Your task to perform on an android device: change text size in settings app Image 0: 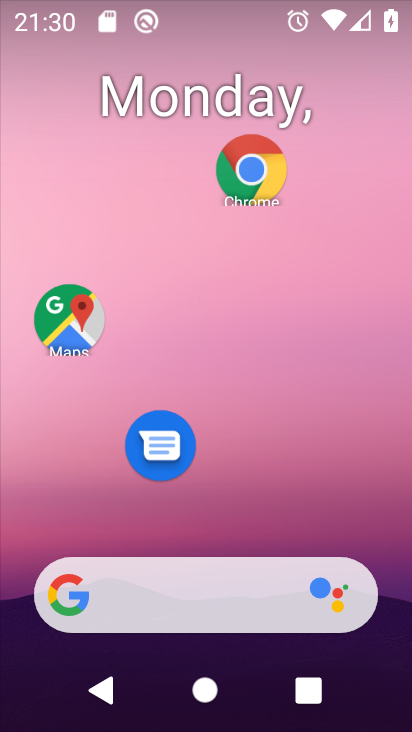
Step 0: press home button
Your task to perform on an android device: change text size in settings app Image 1: 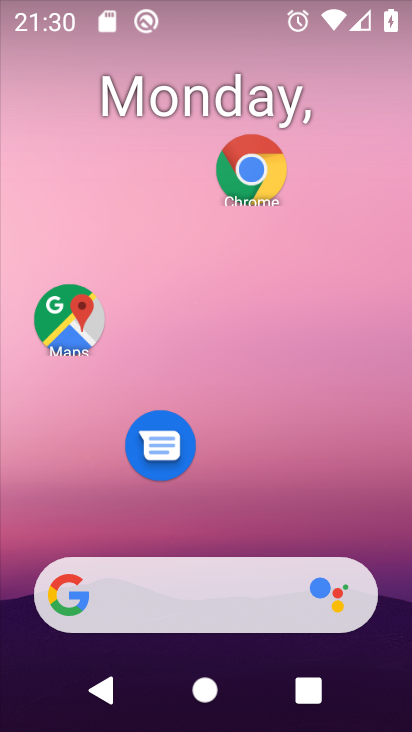
Step 1: drag from (213, 530) to (241, 6)
Your task to perform on an android device: change text size in settings app Image 2: 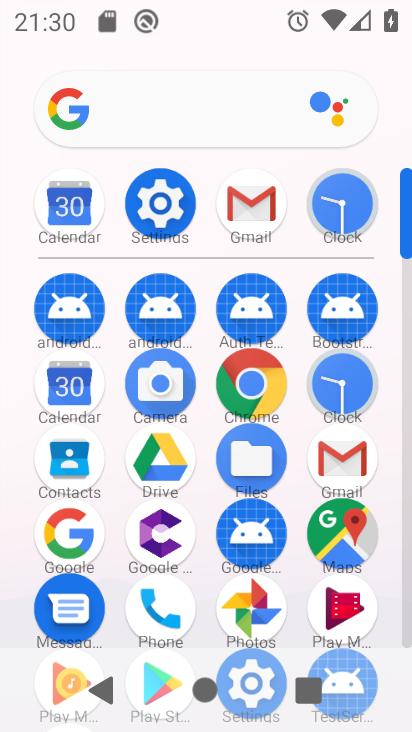
Step 2: click (156, 193)
Your task to perform on an android device: change text size in settings app Image 3: 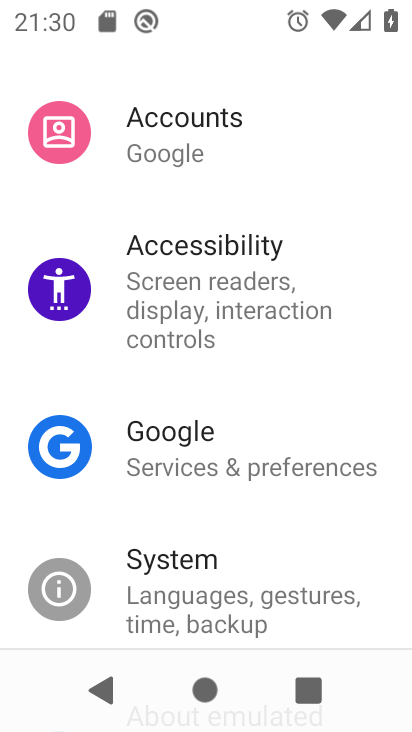
Step 3: drag from (152, 164) to (228, 659)
Your task to perform on an android device: change text size in settings app Image 4: 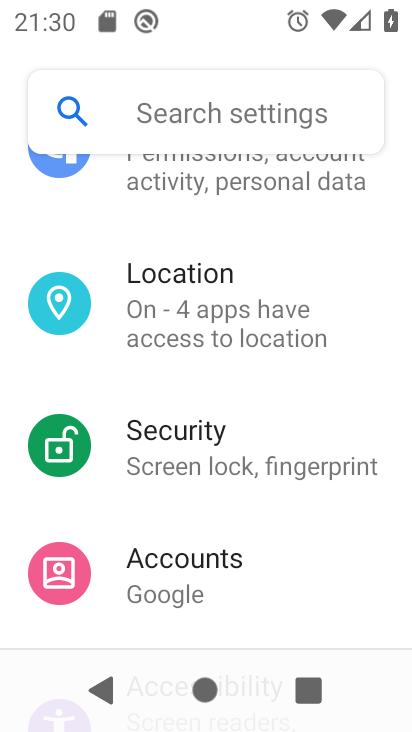
Step 4: drag from (116, 172) to (131, 687)
Your task to perform on an android device: change text size in settings app Image 5: 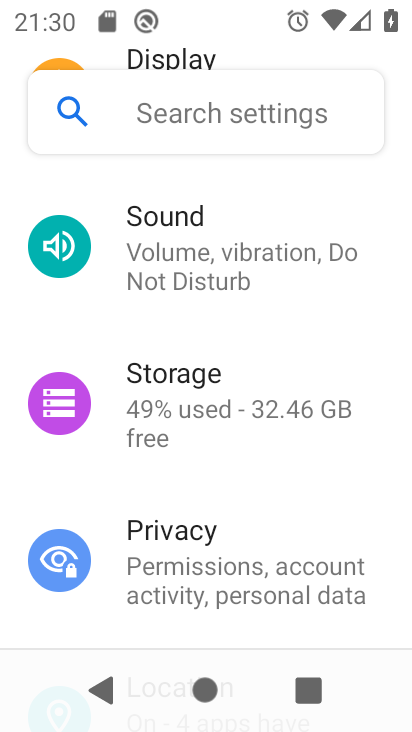
Step 5: drag from (116, 180) to (135, 725)
Your task to perform on an android device: change text size in settings app Image 6: 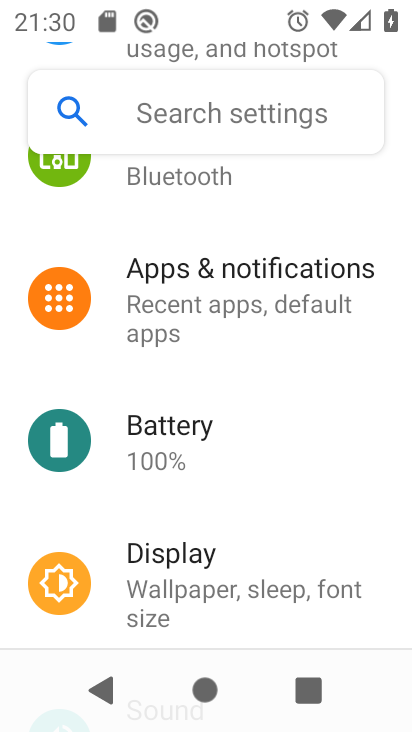
Step 6: click (109, 567)
Your task to perform on an android device: change text size in settings app Image 7: 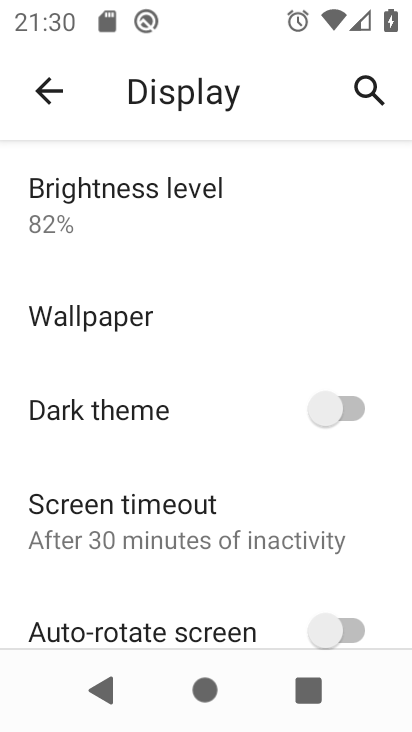
Step 7: drag from (215, 586) to (265, 223)
Your task to perform on an android device: change text size in settings app Image 8: 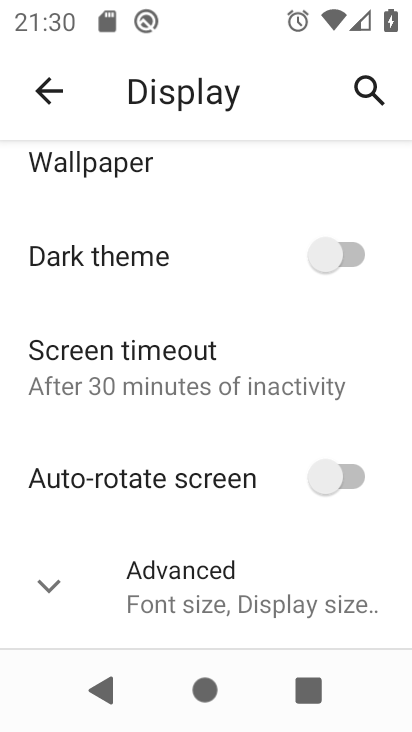
Step 8: click (46, 575)
Your task to perform on an android device: change text size in settings app Image 9: 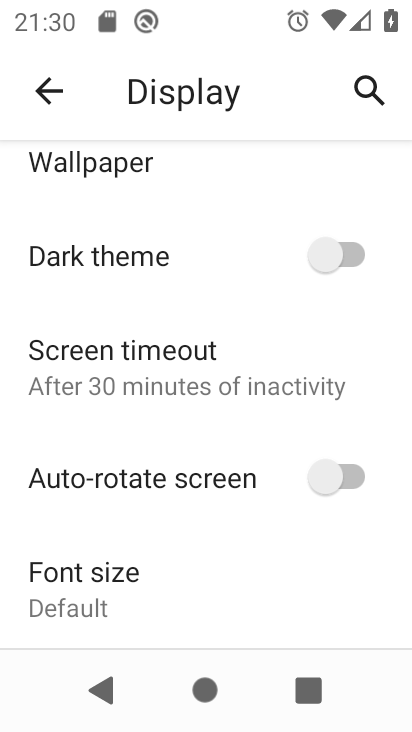
Step 9: click (137, 594)
Your task to perform on an android device: change text size in settings app Image 10: 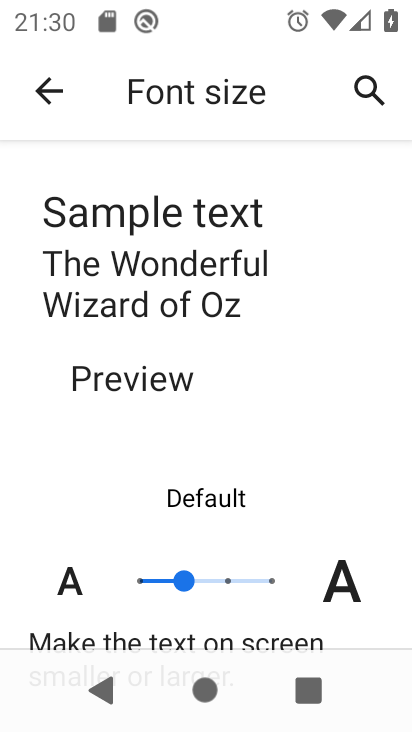
Step 10: click (141, 579)
Your task to perform on an android device: change text size in settings app Image 11: 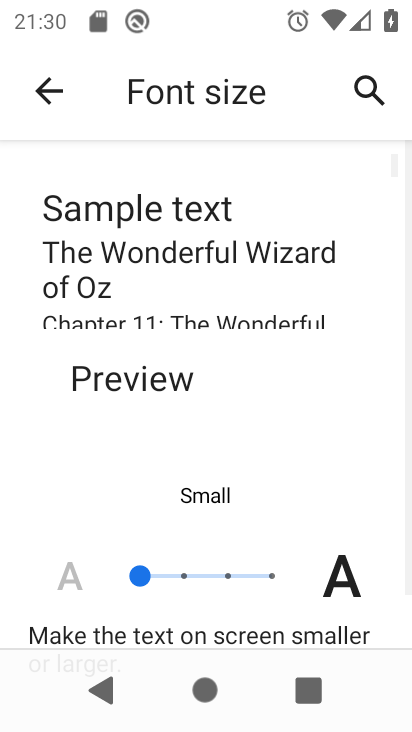
Step 11: task complete